Your task to perform on an android device: delete a single message in the gmail app Image 0: 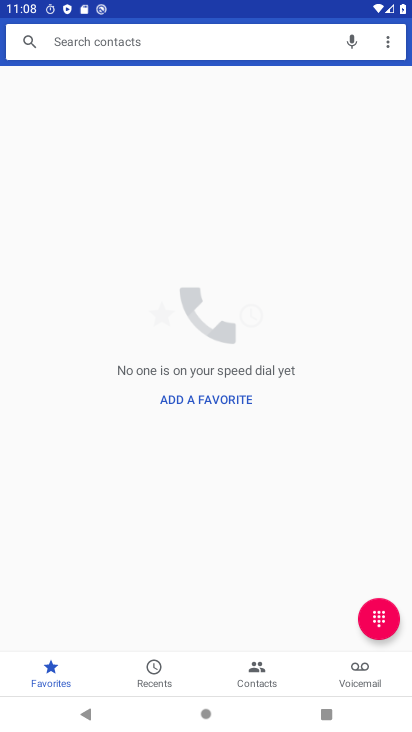
Step 0: press home button
Your task to perform on an android device: delete a single message in the gmail app Image 1: 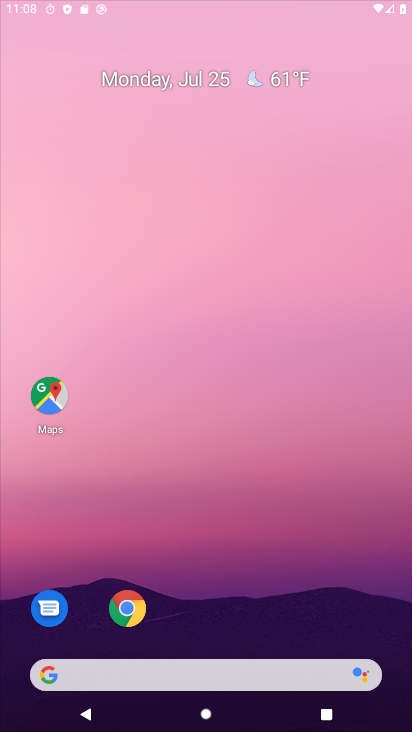
Step 1: drag from (238, 639) to (177, 16)
Your task to perform on an android device: delete a single message in the gmail app Image 2: 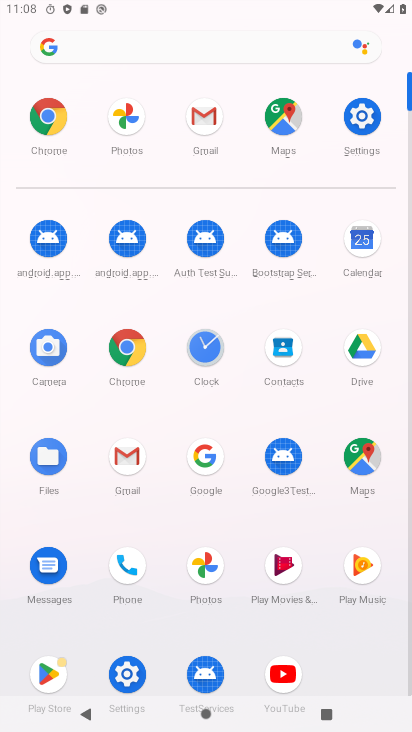
Step 2: click (207, 114)
Your task to perform on an android device: delete a single message in the gmail app Image 3: 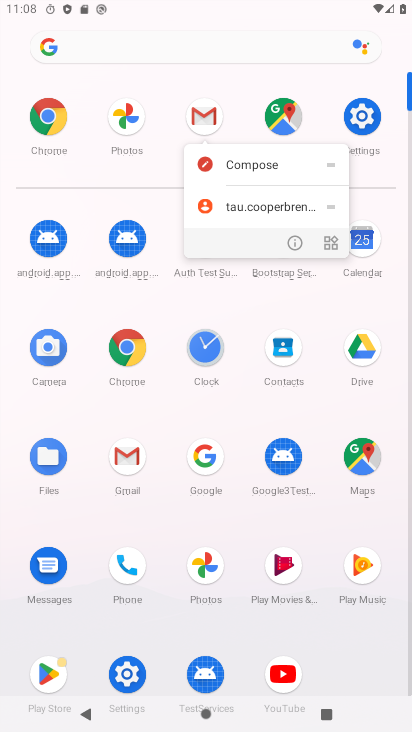
Step 3: click (206, 114)
Your task to perform on an android device: delete a single message in the gmail app Image 4: 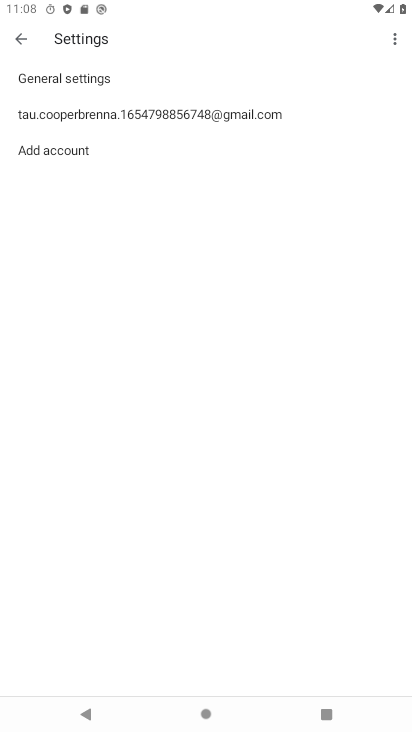
Step 4: click (82, 118)
Your task to perform on an android device: delete a single message in the gmail app Image 5: 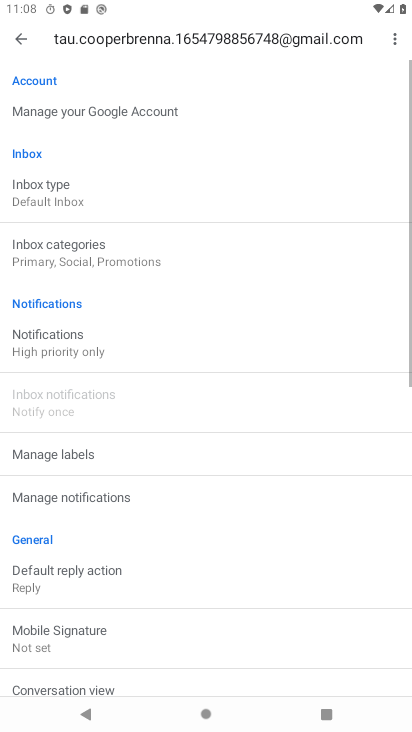
Step 5: click (17, 45)
Your task to perform on an android device: delete a single message in the gmail app Image 6: 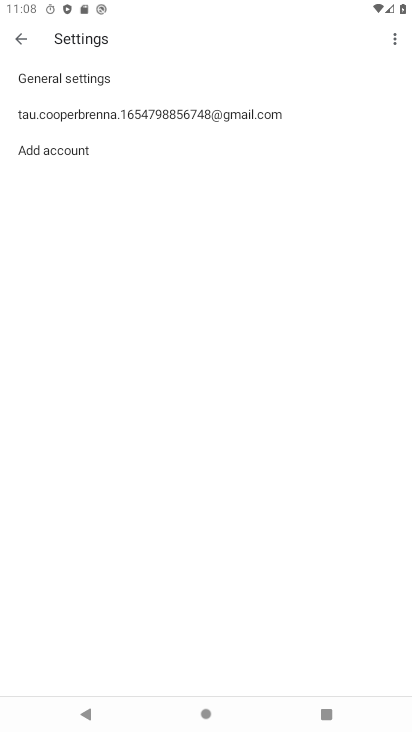
Step 6: click (17, 45)
Your task to perform on an android device: delete a single message in the gmail app Image 7: 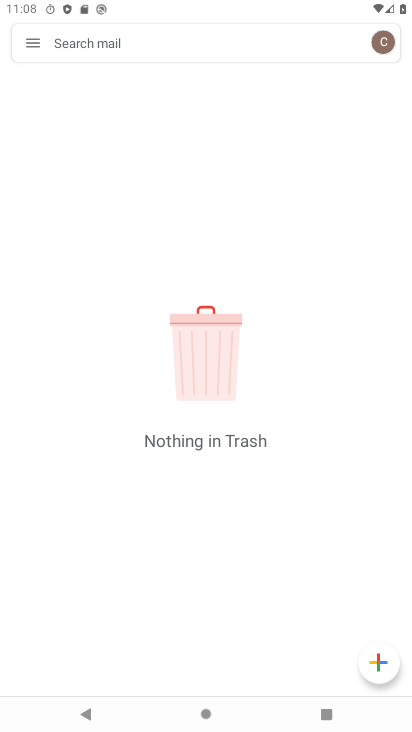
Step 7: click (39, 45)
Your task to perform on an android device: delete a single message in the gmail app Image 8: 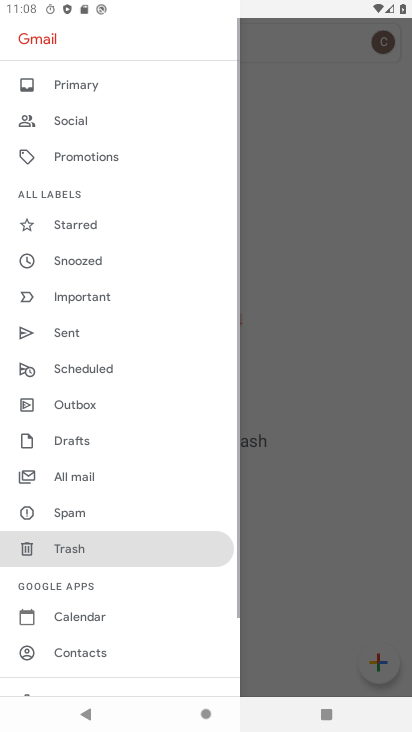
Step 8: drag from (38, 183) to (114, 661)
Your task to perform on an android device: delete a single message in the gmail app Image 9: 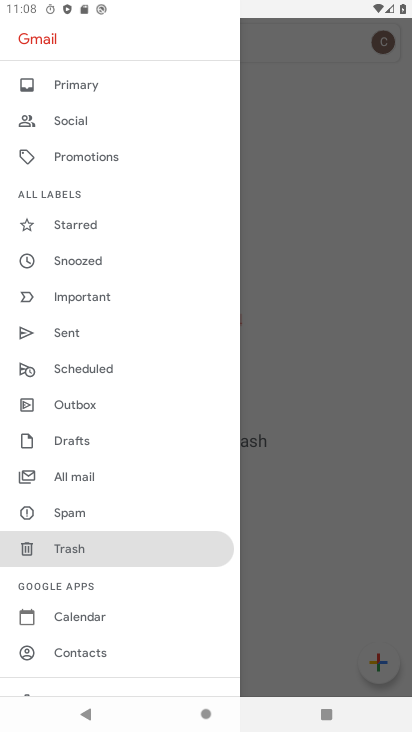
Step 9: click (78, 471)
Your task to perform on an android device: delete a single message in the gmail app Image 10: 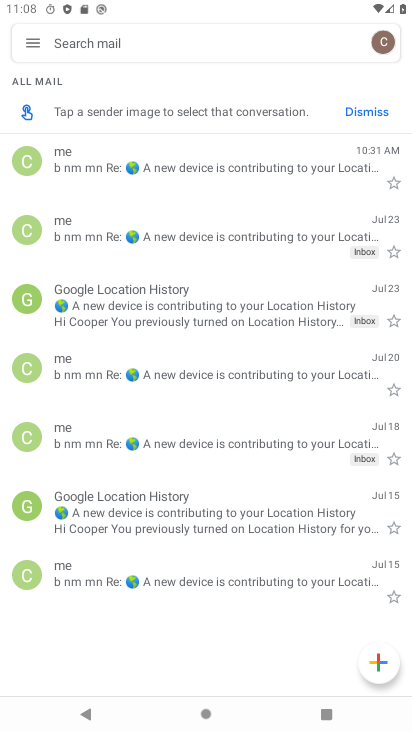
Step 10: click (59, 171)
Your task to perform on an android device: delete a single message in the gmail app Image 11: 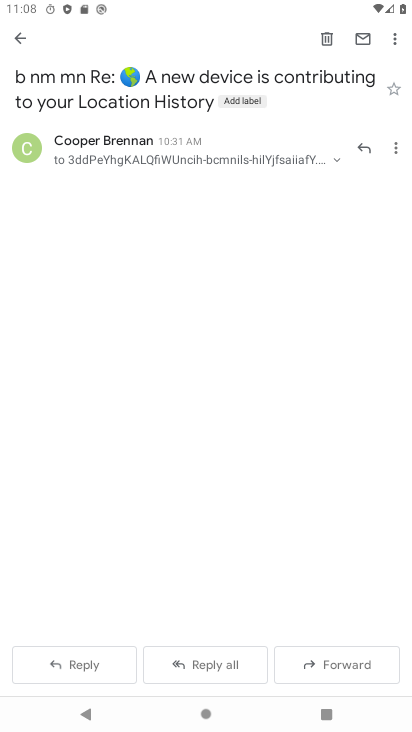
Step 11: click (326, 39)
Your task to perform on an android device: delete a single message in the gmail app Image 12: 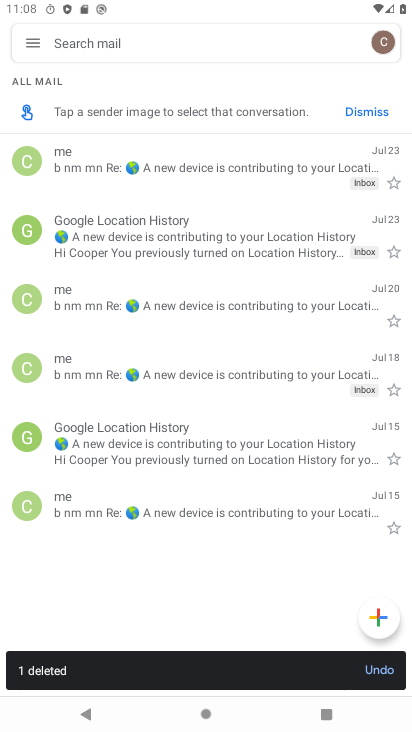
Step 12: task complete